Your task to perform on an android device: Go to Yahoo.com Image 0: 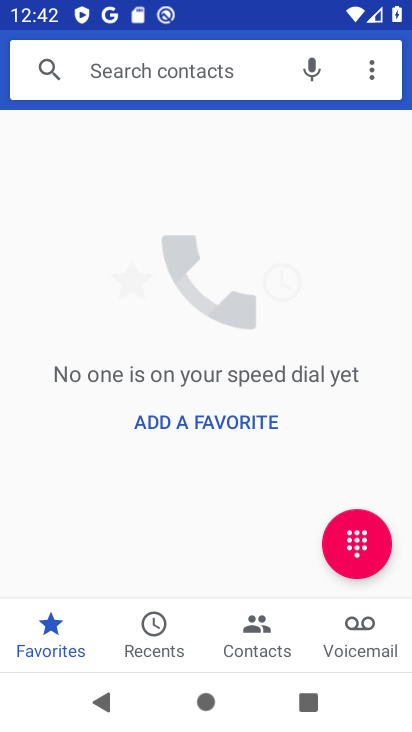
Step 0: press home button
Your task to perform on an android device: Go to Yahoo.com Image 1: 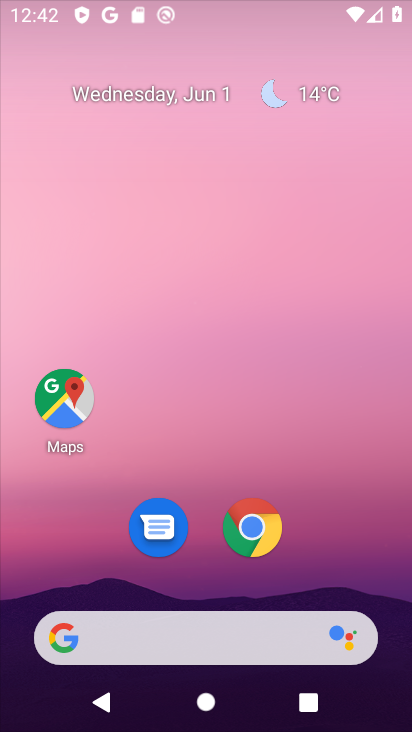
Step 1: drag from (193, 598) to (229, 161)
Your task to perform on an android device: Go to Yahoo.com Image 2: 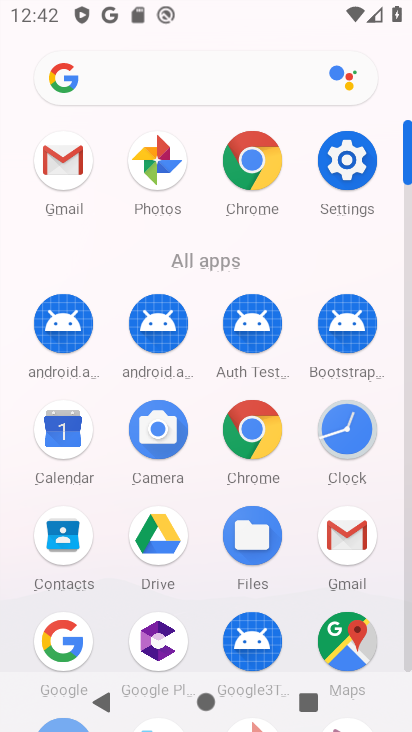
Step 2: click (252, 181)
Your task to perform on an android device: Go to Yahoo.com Image 3: 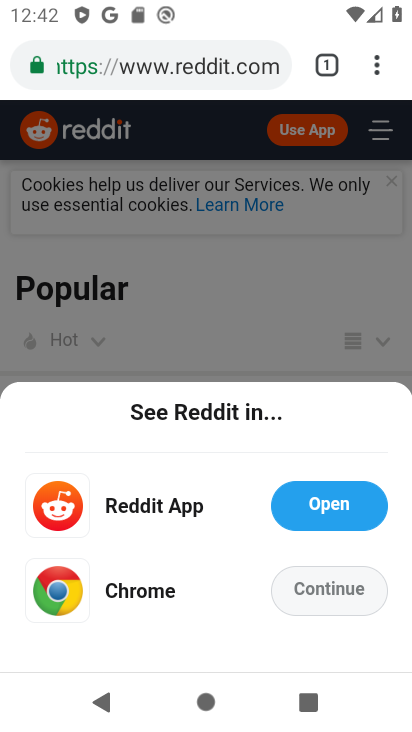
Step 3: click (207, 68)
Your task to perform on an android device: Go to Yahoo.com Image 4: 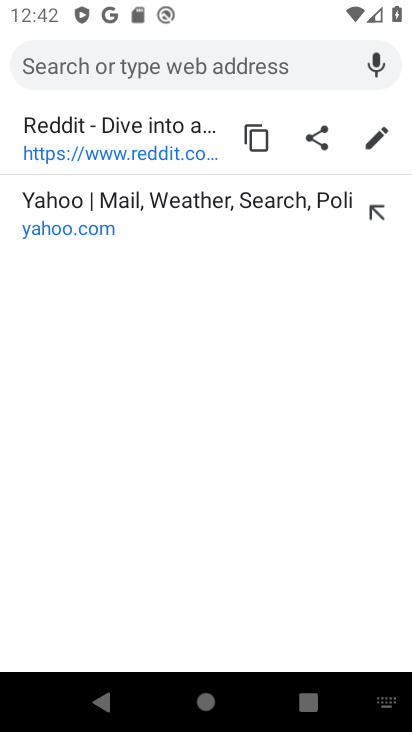
Step 4: click (251, 217)
Your task to perform on an android device: Go to Yahoo.com Image 5: 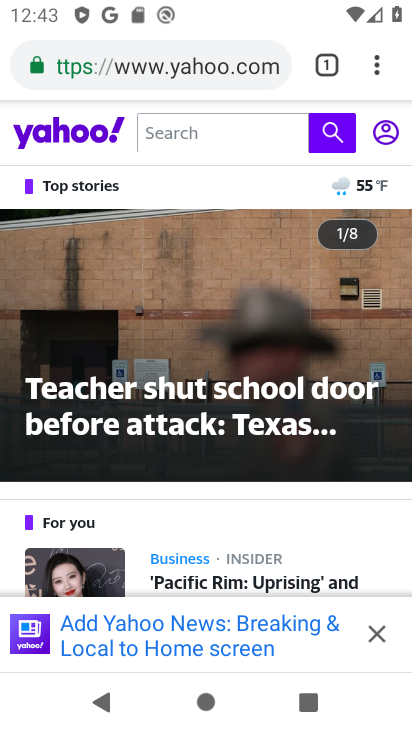
Step 5: task complete